Your task to perform on an android device: add a label to a message in the gmail app Image 0: 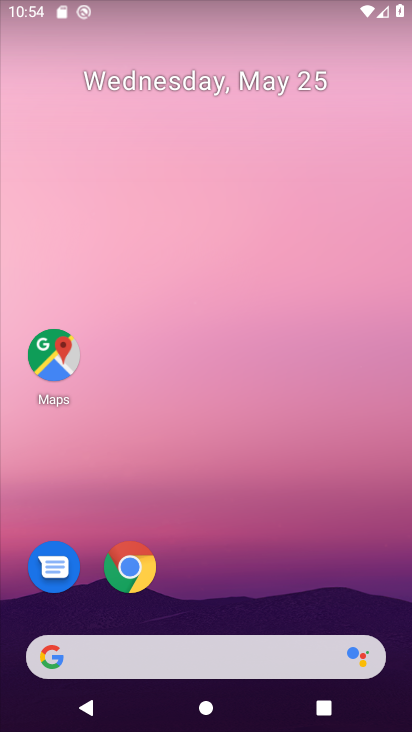
Step 0: drag from (279, 617) to (210, 41)
Your task to perform on an android device: add a label to a message in the gmail app Image 1: 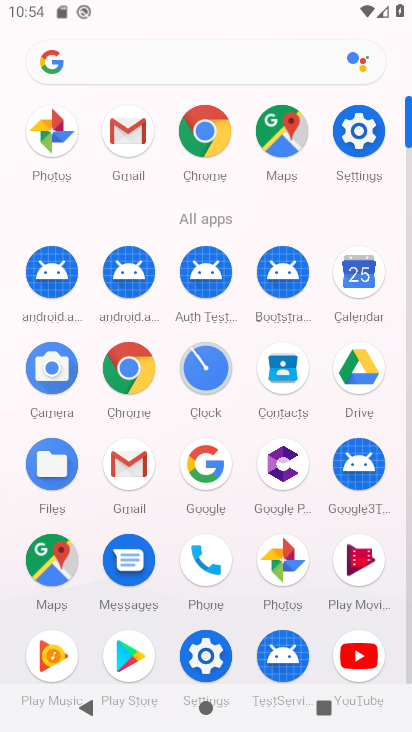
Step 1: click (129, 468)
Your task to perform on an android device: add a label to a message in the gmail app Image 2: 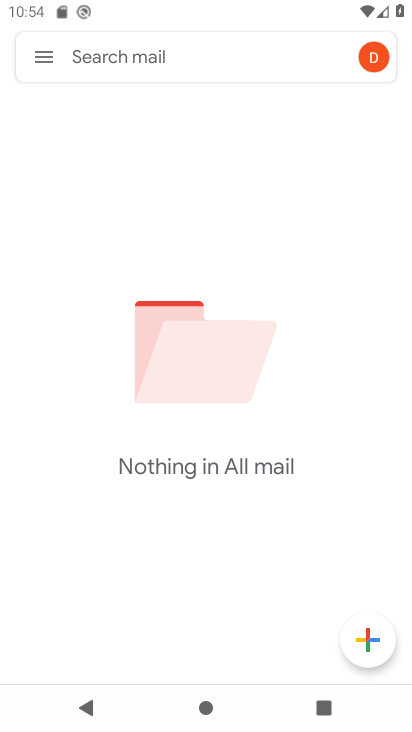
Step 2: task complete